Your task to perform on an android device: Open battery settings Image 0: 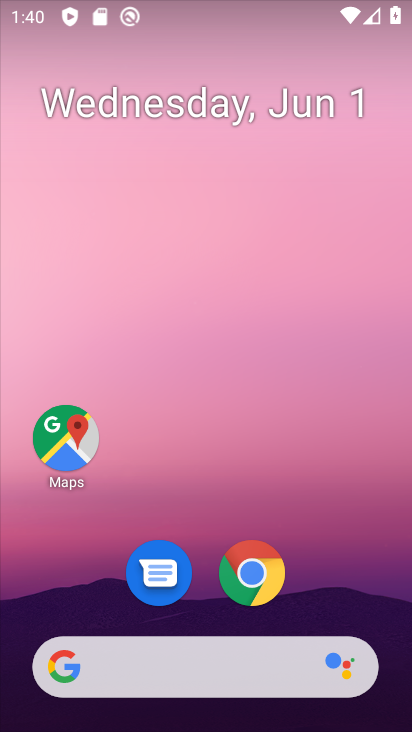
Step 0: drag from (334, 413) to (304, 222)
Your task to perform on an android device: Open battery settings Image 1: 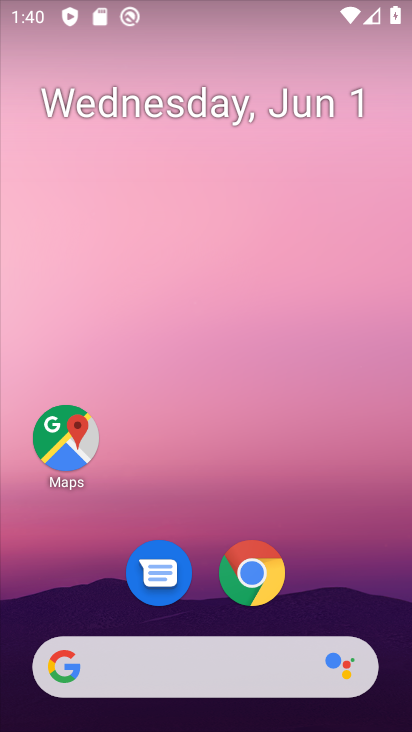
Step 1: drag from (301, 397) to (232, 41)
Your task to perform on an android device: Open battery settings Image 2: 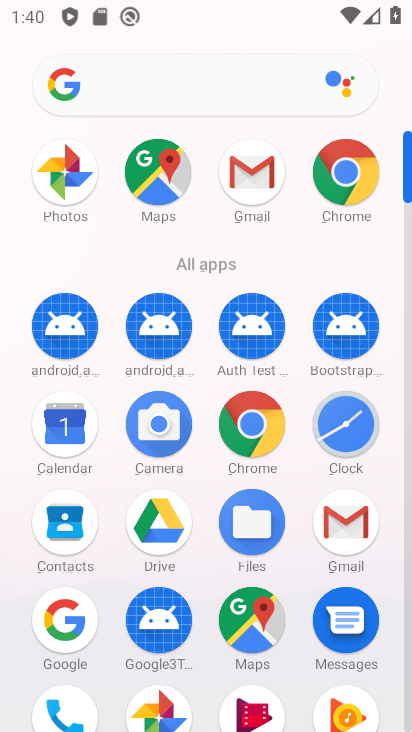
Step 2: drag from (393, 559) to (340, 168)
Your task to perform on an android device: Open battery settings Image 3: 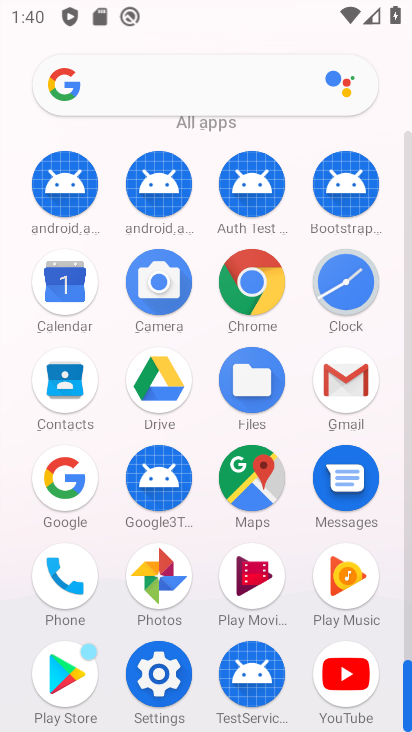
Step 3: click (157, 674)
Your task to perform on an android device: Open battery settings Image 4: 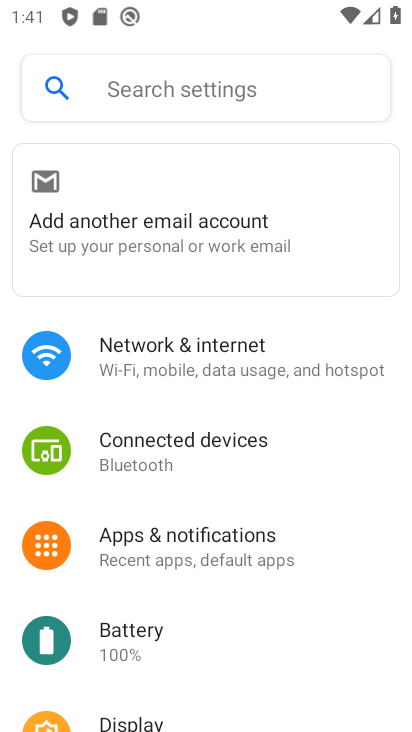
Step 4: click (134, 640)
Your task to perform on an android device: Open battery settings Image 5: 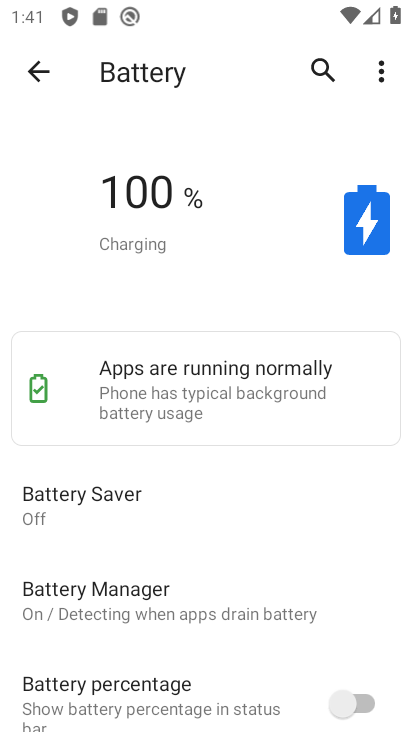
Step 5: task complete